Your task to perform on an android device: turn on bluetooth scan Image 0: 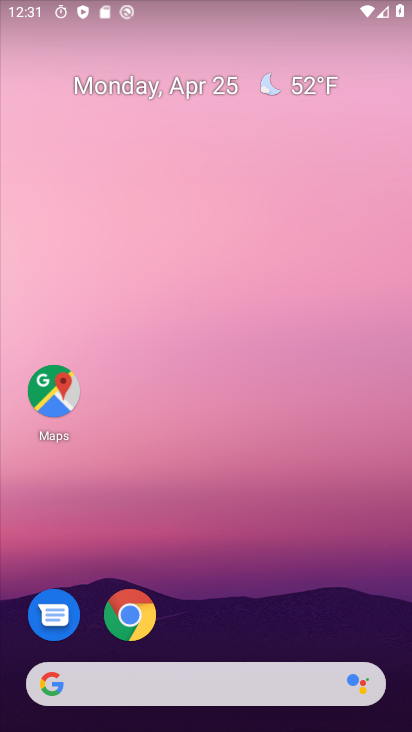
Step 0: drag from (206, 660) to (203, 21)
Your task to perform on an android device: turn on bluetooth scan Image 1: 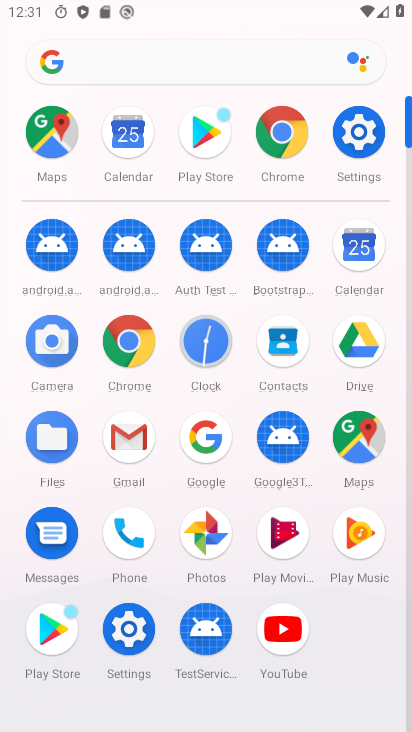
Step 1: click (360, 134)
Your task to perform on an android device: turn on bluetooth scan Image 2: 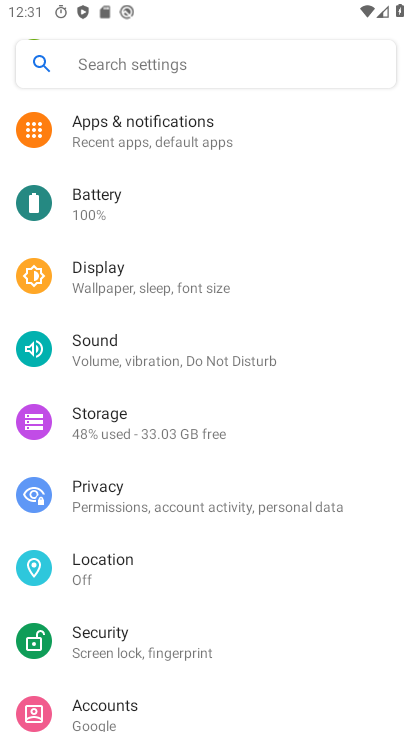
Step 2: click (118, 587)
Your task to perform on an android device: turn on bluetooth scan Image 3: 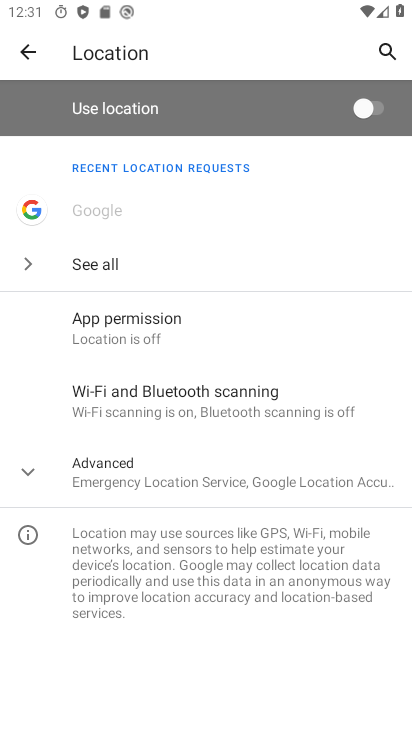
Step 3: click (175, 411)
Your task to perform on an android device: turn on bluetooth scan Image 4: 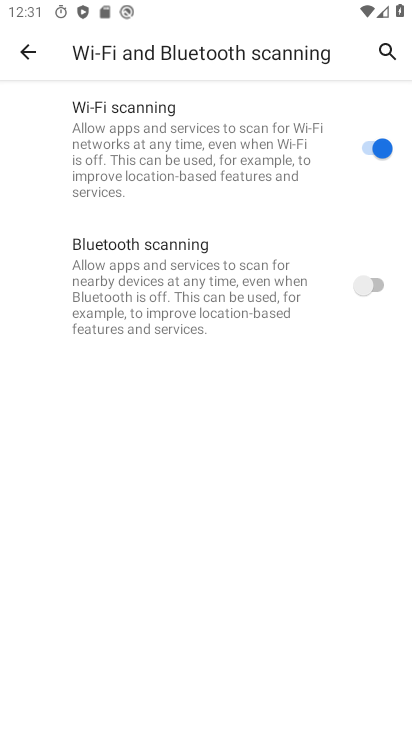
Step 4: click (378, 279)
Your task to perform on an android device: turn on bluetooth scan Image 5: 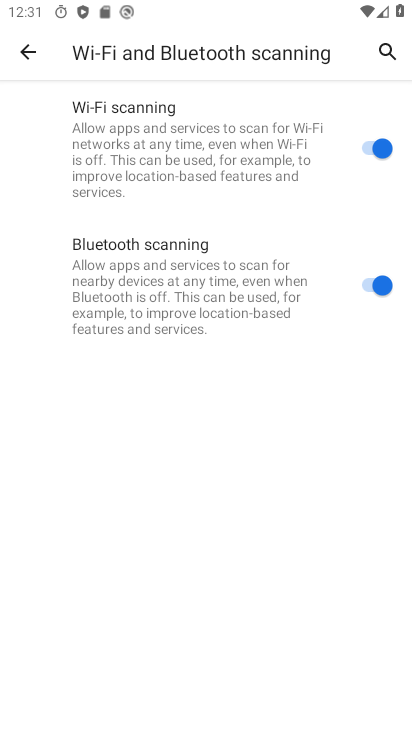
Step 5: task complete